Your task to perform on an android device: Open location settings Image 0: 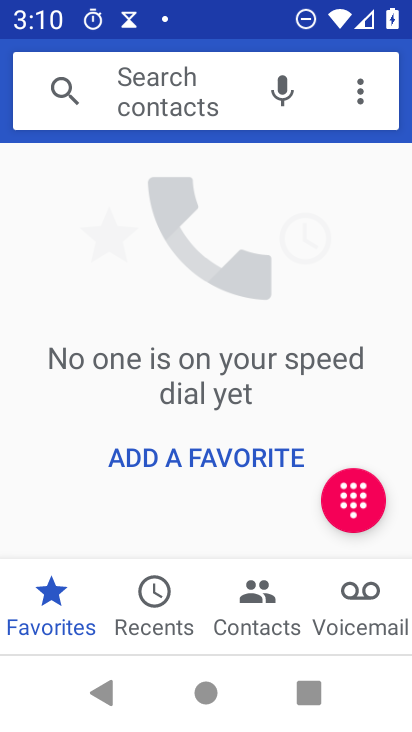
Step 0: press home button
Your task to perform on an android device: Open location settings Image 1: 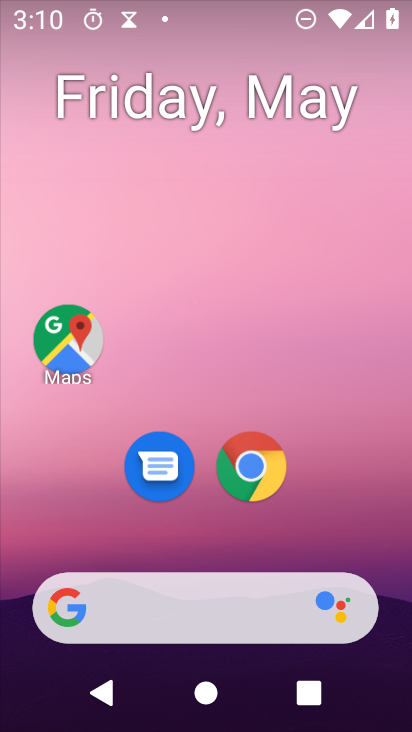
Step 1: drag from (340, 539) to (346, 121)
Your task to perform on an android device: Open location settings Image 2: 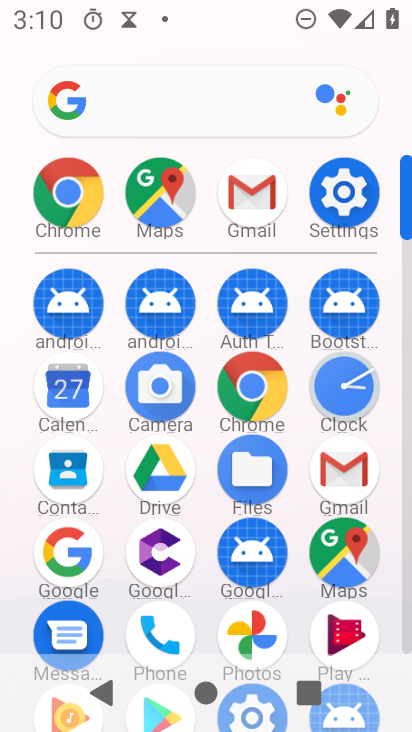
Step 2: click (337, 201)
Your task to perform on an android device: Open location settings Image 3: 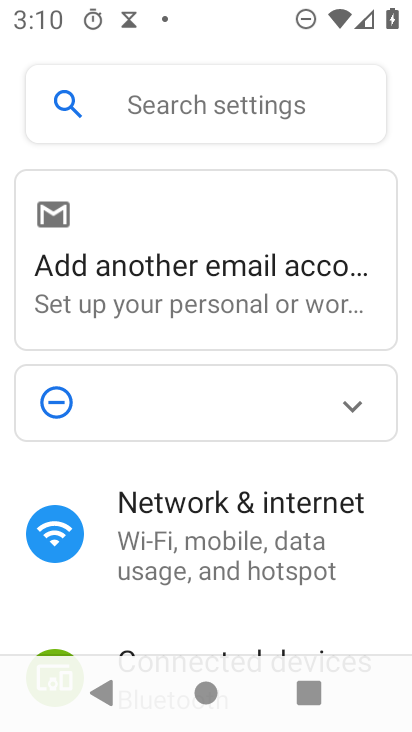
Step 3: drag from (285, 577) to (280, 135)
Your task to perform on an android device: Open location settings Image 4: 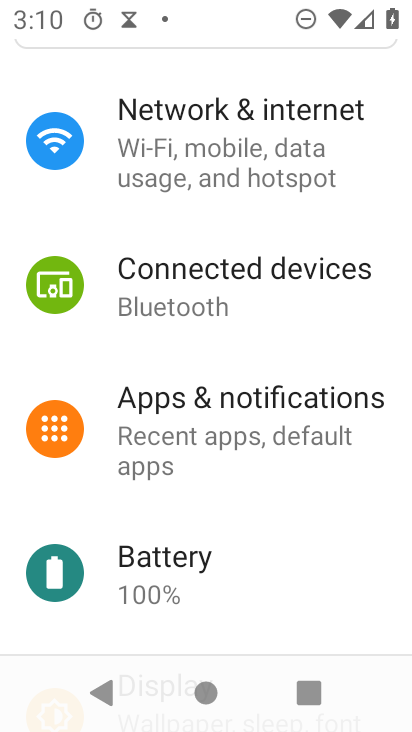
Step 4: drag from (284, 455) to (283, 124)
Your task to perform on an android device: Open location settings Image 5: 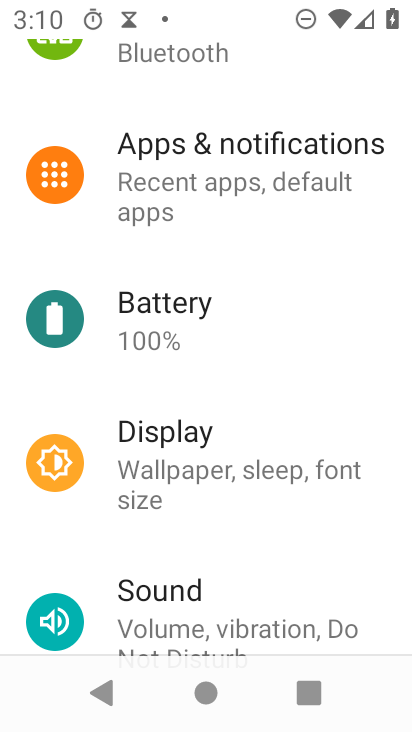
Step 5: drag from (262, 568) to (260, 263)
Your task to perform on an android device: Open location settings Image 6: 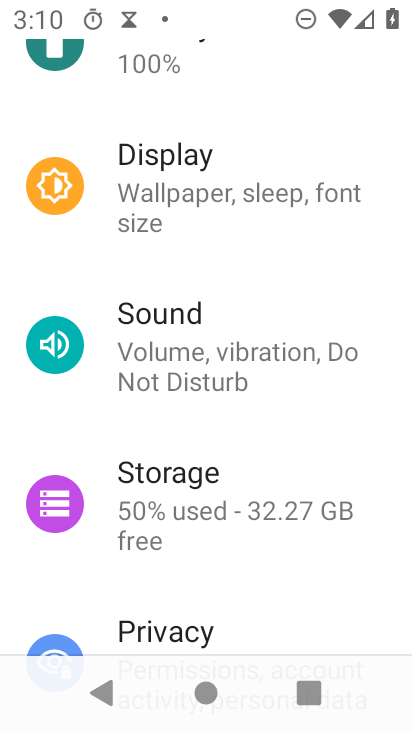
Step 6: drag from (275, 552) to (296, 136)
Your task to perform on an android device: Open location settings Image 7: 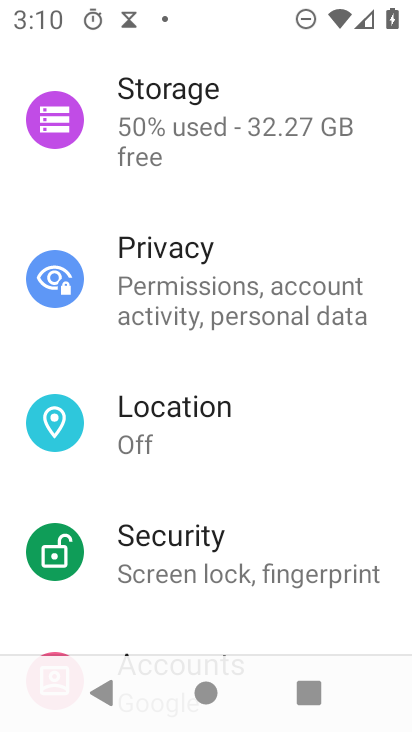
Step 7: click (204, 428)
Your task to perform on an android device: Open location settings Image 8: 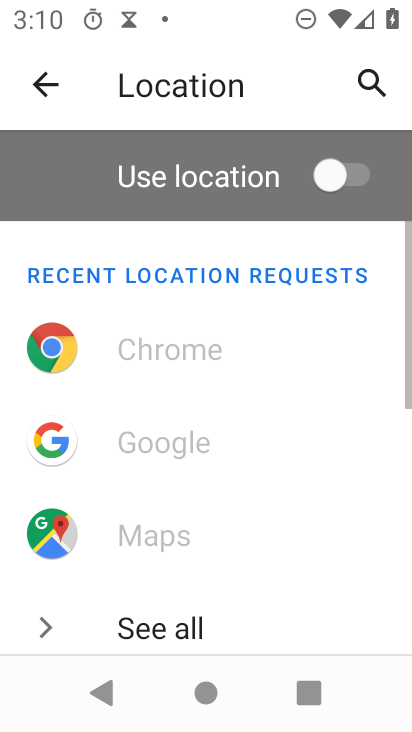
Step 8: drag from (232, 651) to (220, 222)
Your task to perform on an android device: Open location settings Image 9: 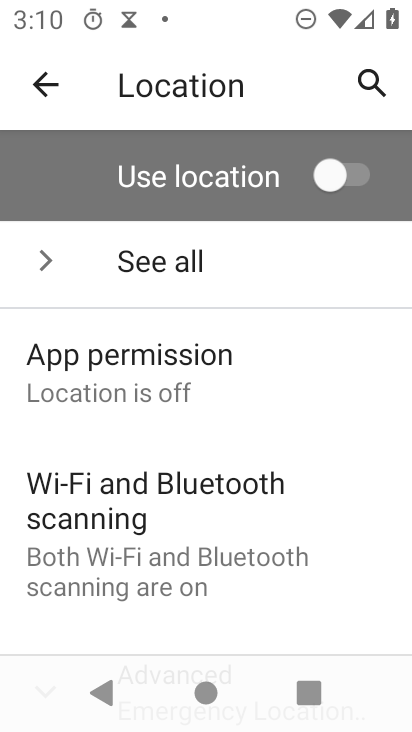
Step 9: drag from (221, 611) to (252, 190)
Your task to perform on an android device: Open location settings Image 10: 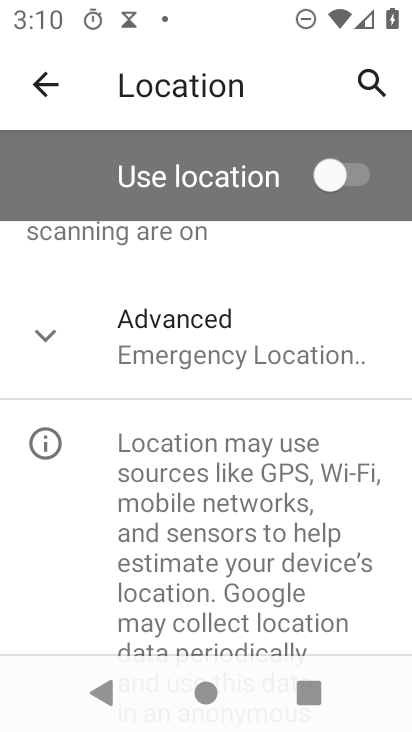
Step 10: drag from (175, 568) to (246, 213)
Your task to perform on an android device: Open location settings Image 11: 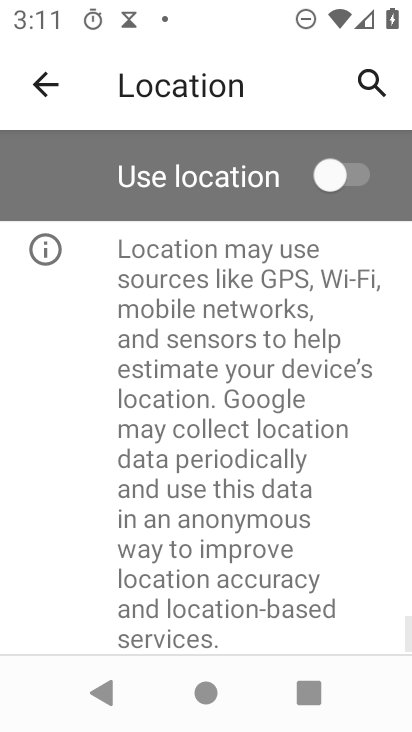
Step 11: click (181, 685)
Your task to perform on an android device: Open location settings Image 12: 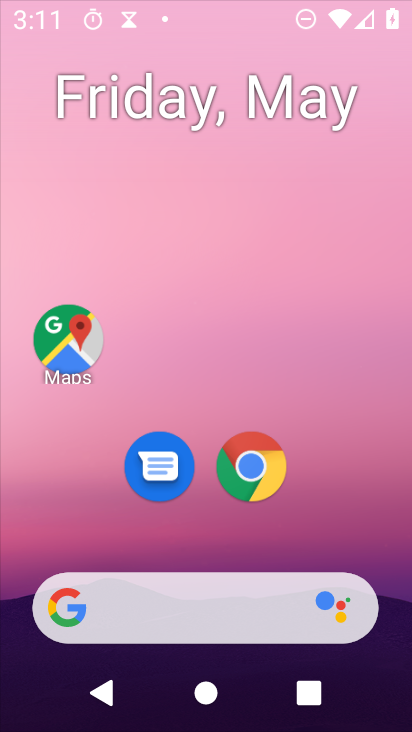
Step 12: task complete